Your task to perform on an android device: choose inbox layout in the gmail app Image 0: 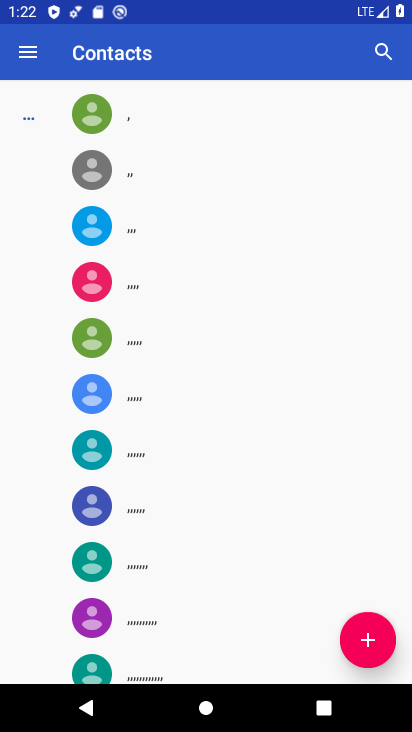
Step 0: press home button
Your task to perform on an android device: choose inbox layout in the gmail app Image 1: 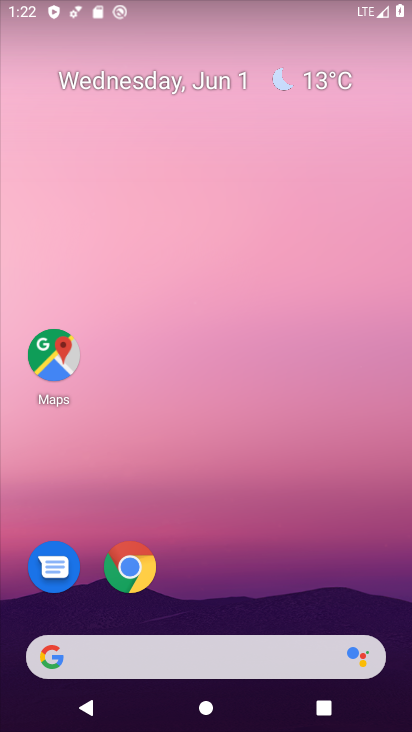
Step 1: drag from (318, 544) to (346, 214)
Your task to perform on an android device: choose inbox layout in the gmail app Image 2: 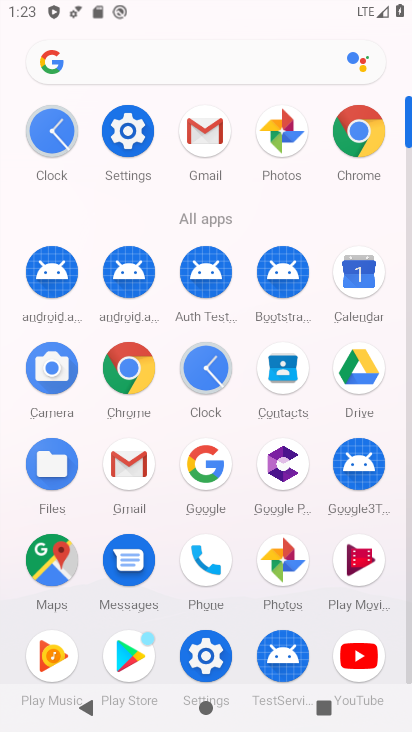
Step 2: click (202, 138)
Your task to perform on an android device: choose inbox layout in the gmail app Image 3: 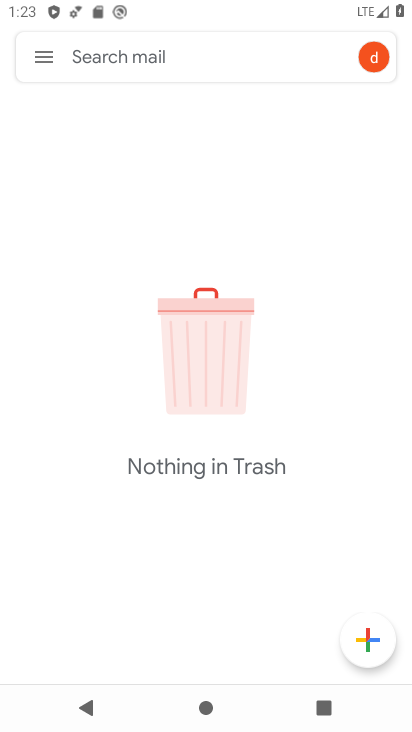
Step 3: click (58, 71)
Your task to perform on an android device: choose inbox layout in the gmail app Image 4: 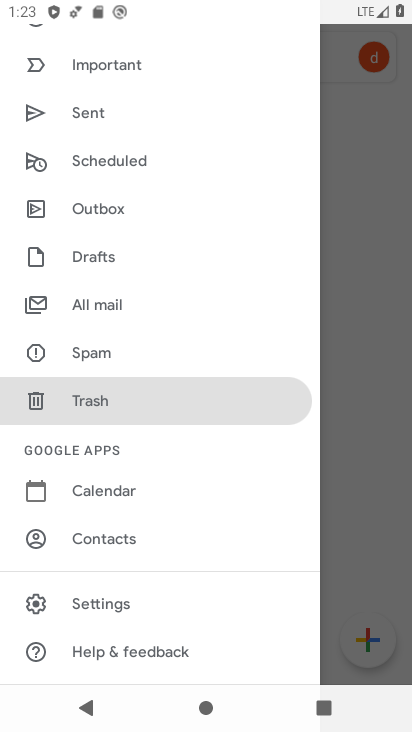
Step 4: click (119, 605)
Your task to perform on an android device: choose inbox layout in the gmail app Image 5: 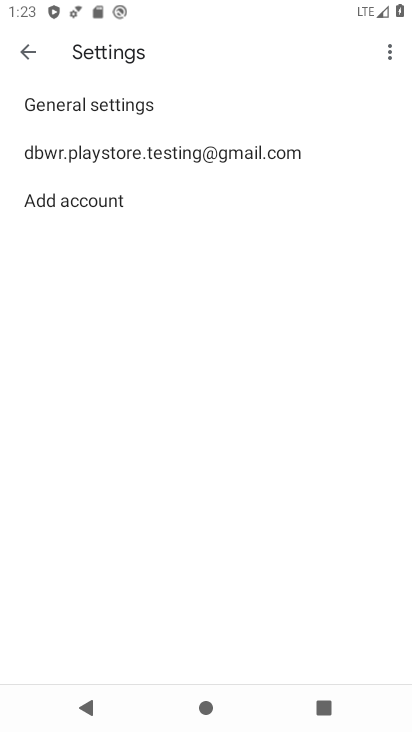
Step 5: click (129, 138)
Your task to perform on an android device: choose inbox layout in the gmail app Image 6: 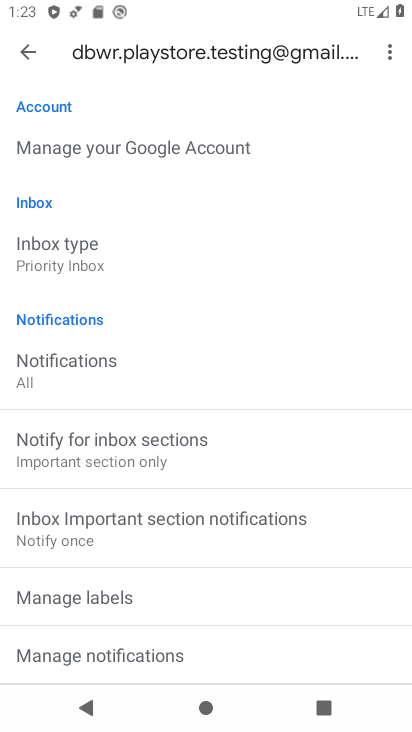
Step 6: click (109, 266)
Your task to perform on an android device: choose inbox layout in the gmail app Image 7: 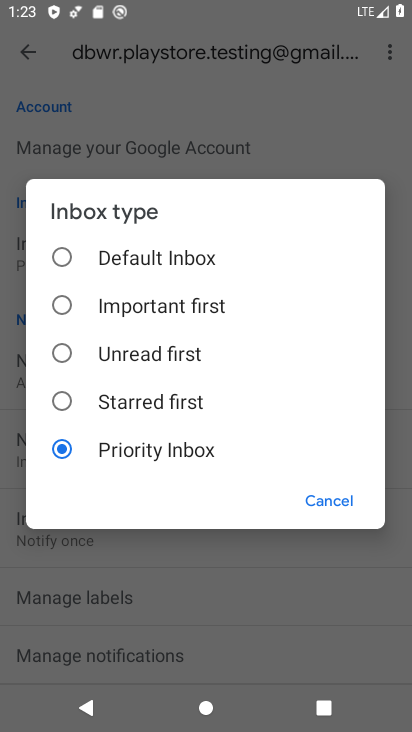
Step 7: click (182, 307)
Your task to perform on an android device: choose inbox layout in the gmail app Image 8: 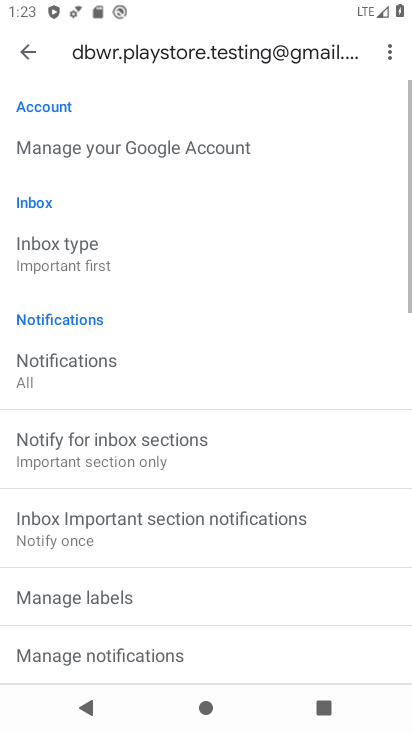
Step 8: task complete